Your task to perform on an android device: Go to calendar. Show me events next week Image 0: 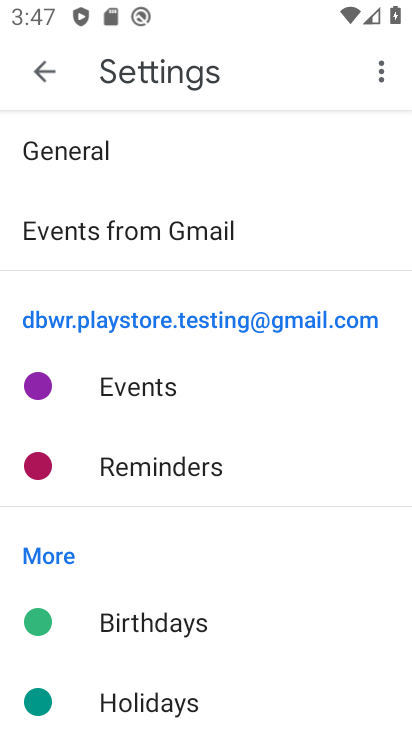
Step 0: press home button
Your task to perform on an android device: Go to calendar. Show me events next week Image 1: 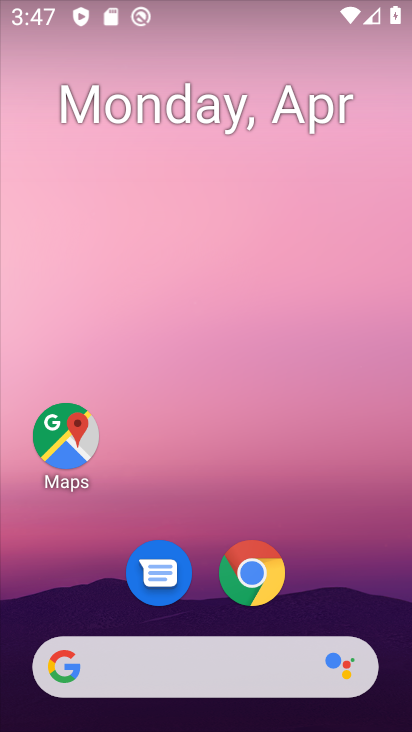
Step 1: drag from (381, 575) to (370, 73)
Your task to perform on an android device: Go to calendar. Show me events next week Image 2: 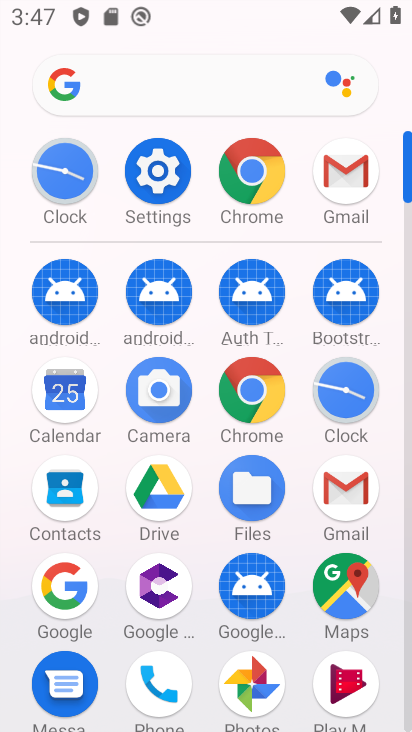
Step 2: click (73, 398)
Your task to perform on an android device: Go to calendar. Show me events next week Image 3: 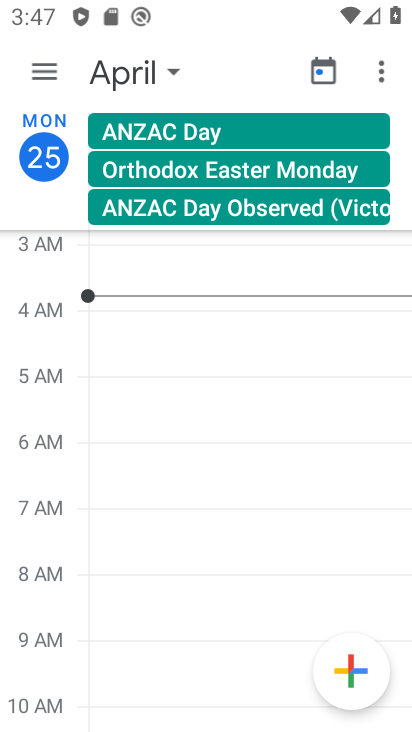
Step 3: click (172, 70)
Your task to perform on an android device: Go to calendar. Show me events next week Image 4: 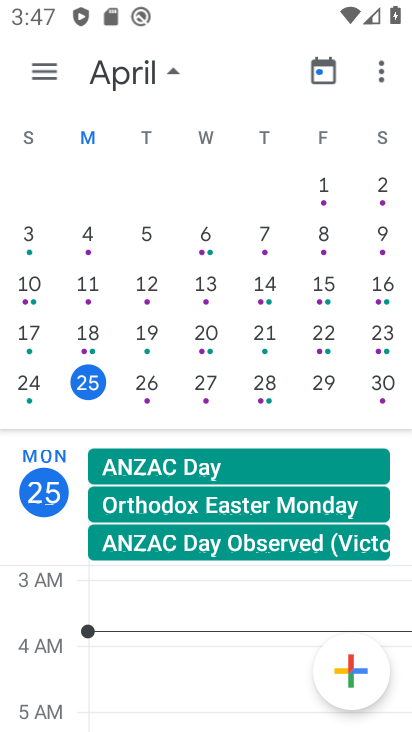
Step 4: drag from (253, 189) to (6, 186)
Your task to perform on an android device: Go to calendar. Show me events next week Image 5: 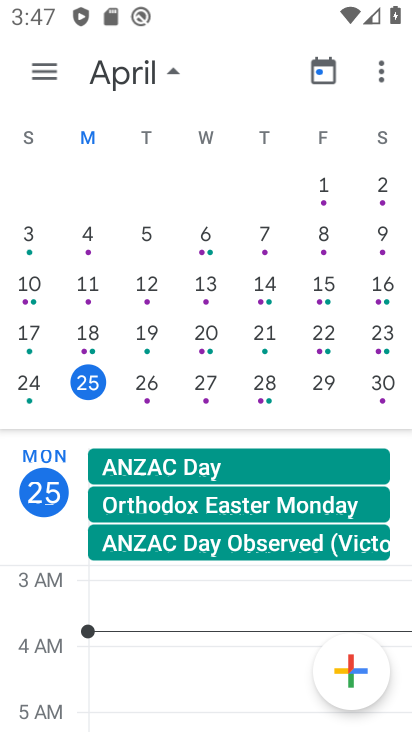
Step 5: drag from (271, 174) to (27, 184)
Your task to perform on an android device: Go to calendar. Show me events next week Image 6: 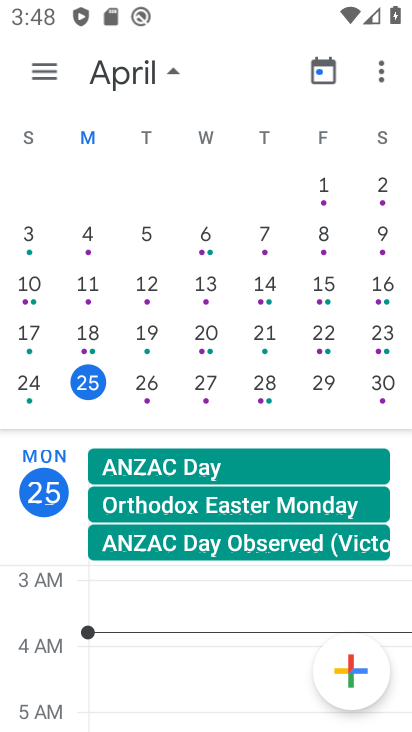
Step 6: drag from (367, 104) to (3, 125)
Your task to perform on an android device: Go to calendar. Show me events next week Image 7: 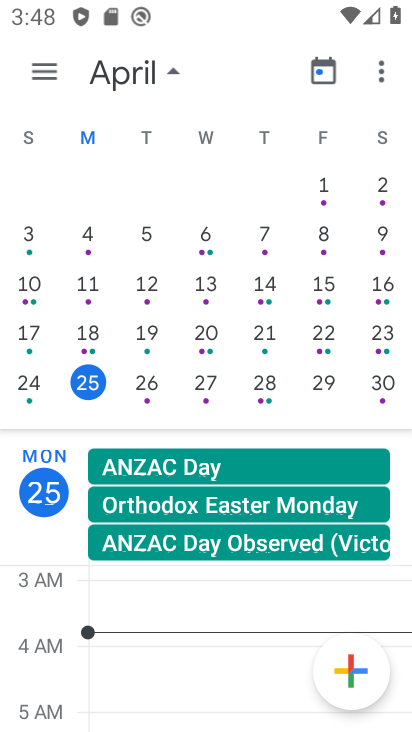
Step 7: drag from (212, 178) to (43, 179)
Your task to perform on an android device: Go to calendar. Show me events next week Image 8: 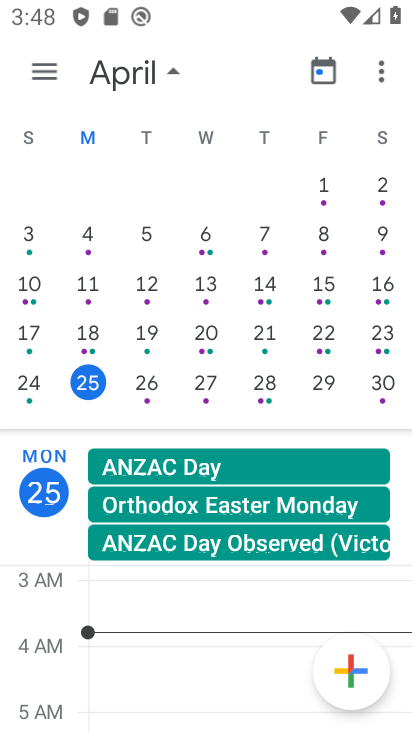
Step 8: drag from (369, 409) to (22, 400)
Your task to perform on an android device: Go to calendar. Show me events next week Image 9: 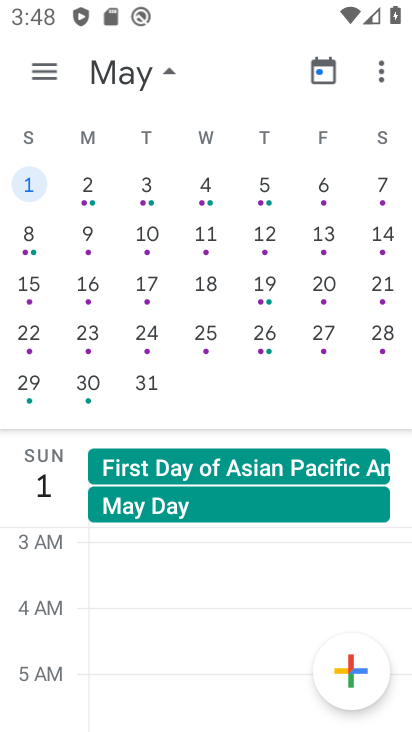
Step 9: click (85, 186)
Your task to perform on an android device: Go to calendar. Show me events next week Image 10: 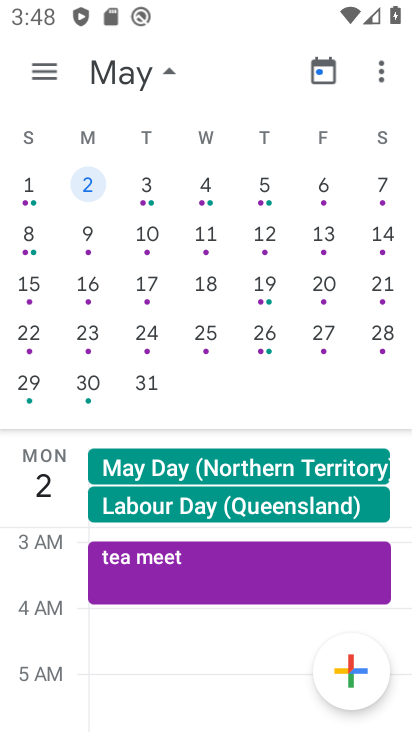
Step 10: click (261, 570)
Your task to perform on an android device: Go to calendar. Show me events next week Image 11: 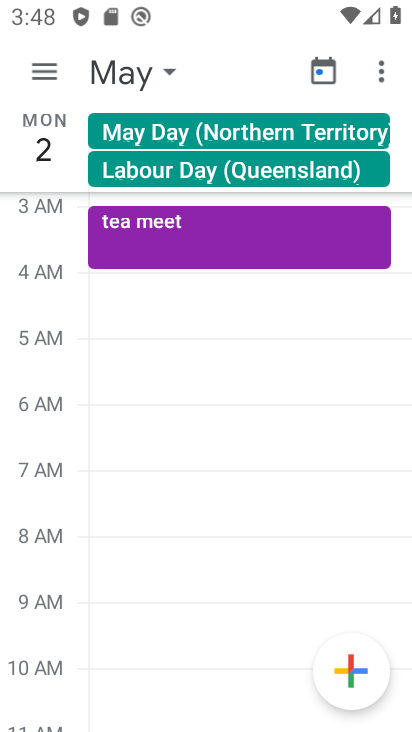
Step 11: task complete